Your task to perform on an android device: visit the assistant section in the google photos Image 0: 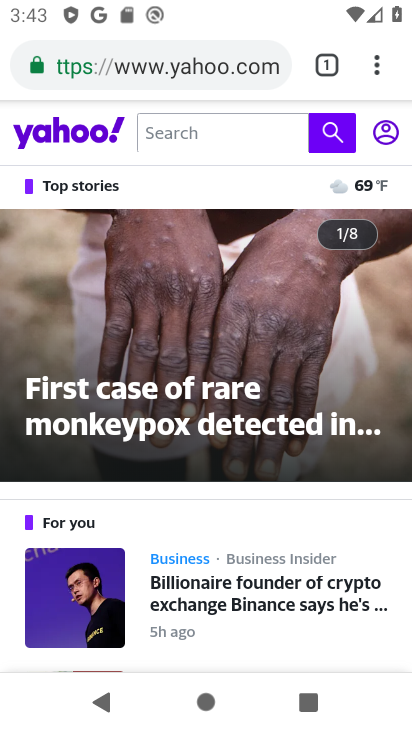
Step 0: press home button
Your task to perform on an android device: visit the assistant section in the google photos Image 1: 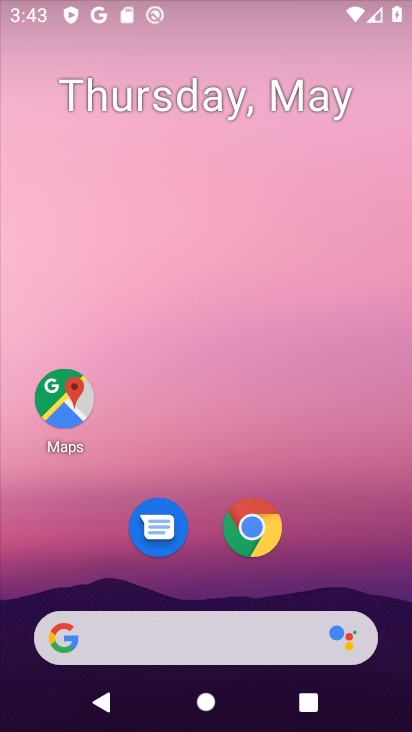
Step 1: drag from (254, 572) to (344, 4)
Your task to perform on an android device: visit the assistant section in the google photos Image 2: 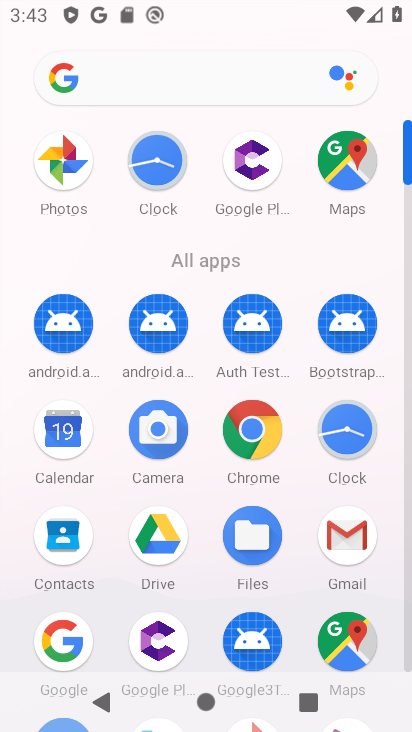
Step 2: drag from (193, 607) to (189, 203)
Your task to perform on an android device: visit the assistant section in the google photos Image 3: 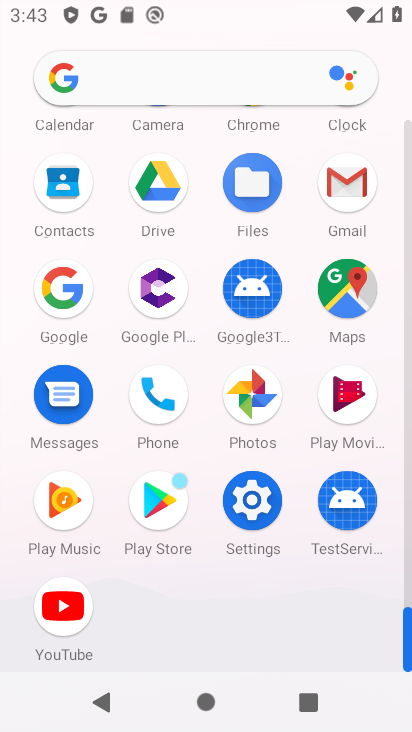
Step 3: click (250, 406)
Your task to perform on an android device: visit the assistant section in the google photos Image 4: 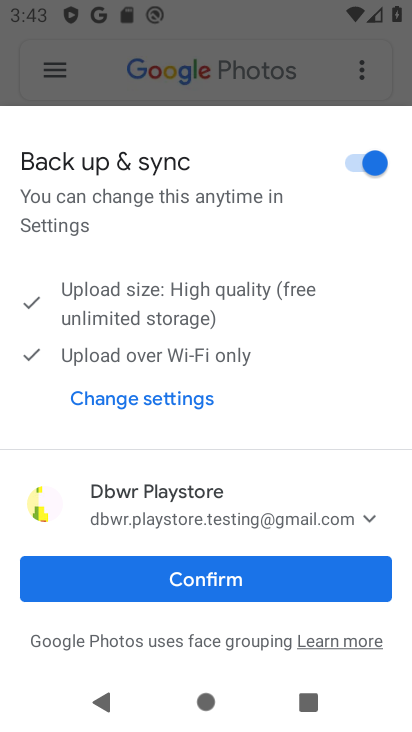
Step 4: click (193, 590)
Your task to perform on an android device: visit the assistant section in the google photos Image 5: 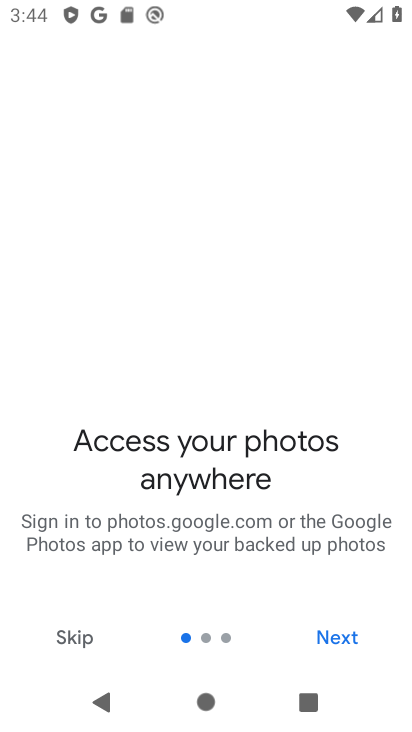
Step 5: click (350, 640)
Your task to perform on an android device: visit the assistant section in the google photos Image 6: 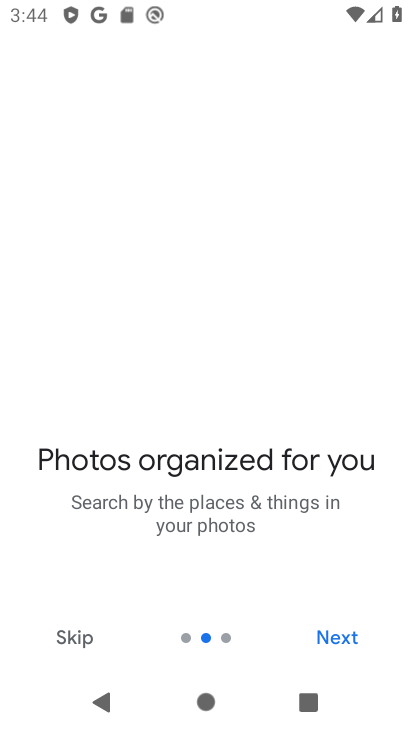
Step 6: click (350, 640)
Your task to perform on an android device: visit the assistant section in the google photos Image 7: 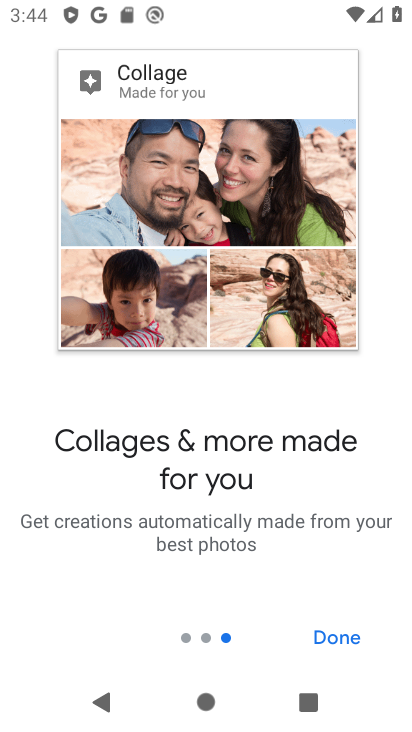
Step 7: click (350, 640)
Your task to perform on an android device: visit the assistant section in the google photos Image 8: 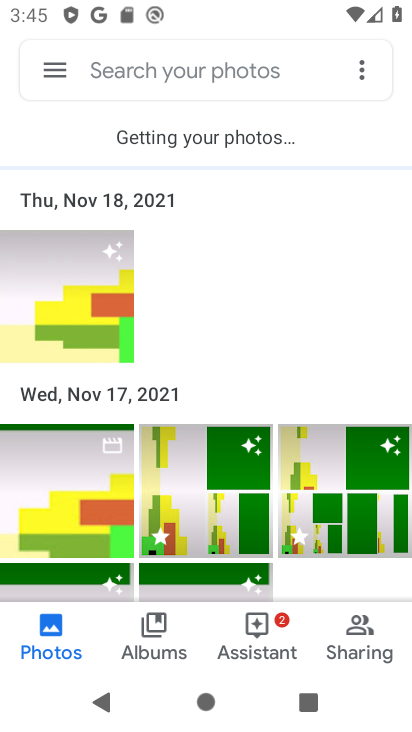
Step 8: click (250, 629)
Your task to perform on an android device: visit the assistant section in the google photos Image 9: 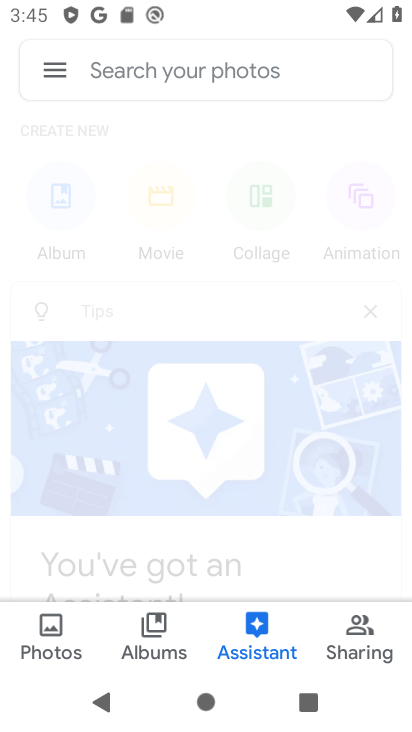
Step 9: task complete